Your task to perform on an android device: search for starred emails in the gmail app Image 0: 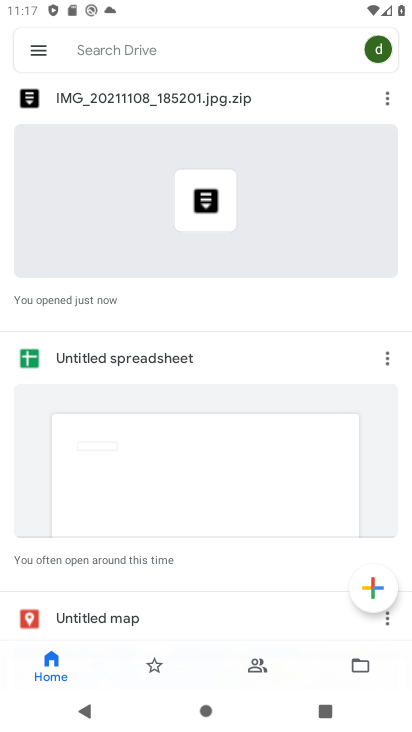
Step 0: press home button
Your task to perform on an android device: search for starred emails in the gmail app Image 1: 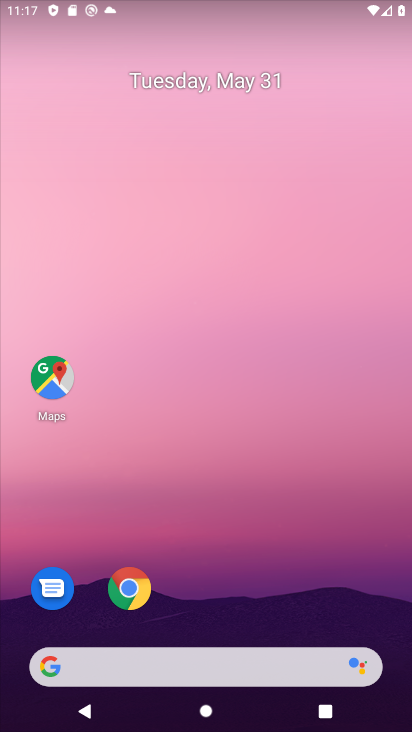
Step 1: drag from (195, 479) to (265, 237)
Your task to perform on an android device: search for starred emails in the gmail app Image 2: 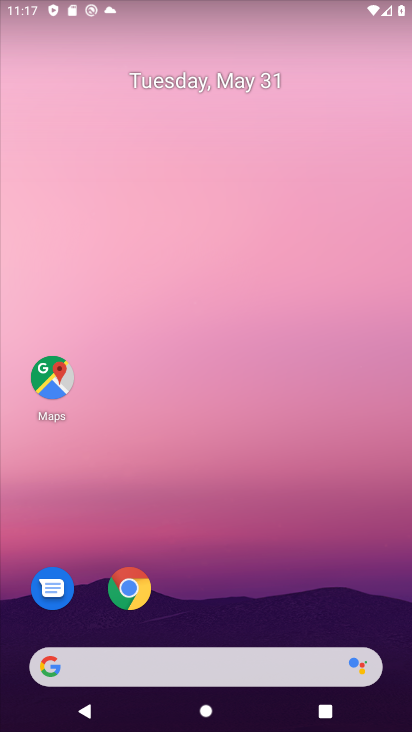
Step 2: drag from (243, 582) to (367, 220)
Your task to perform on an android device: search for starred emails in the gmail app Image 3: 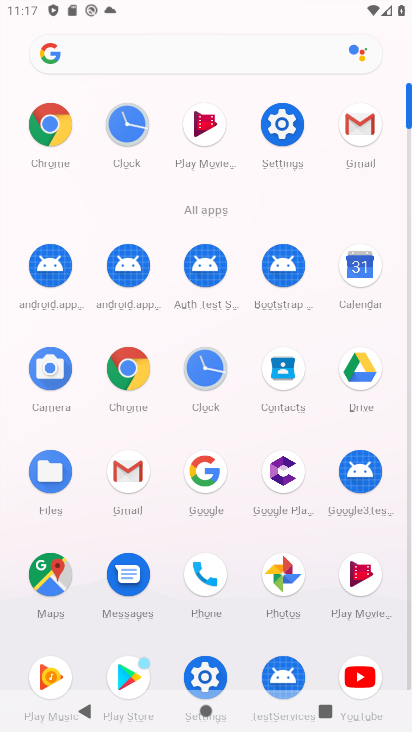
Step 3: click (351, 124)
Your task to perform on an android device: search for starred emails in the gmail app Image 4: 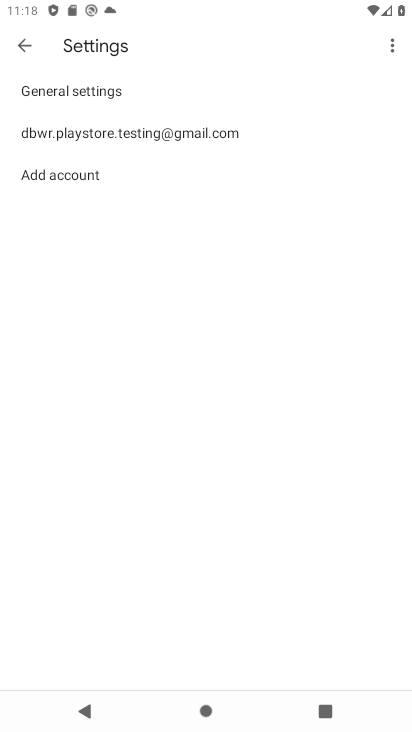
Step 4: click (64, 126)
Your task to perform on an android device: search for starred emails in the gmail app Image 5: 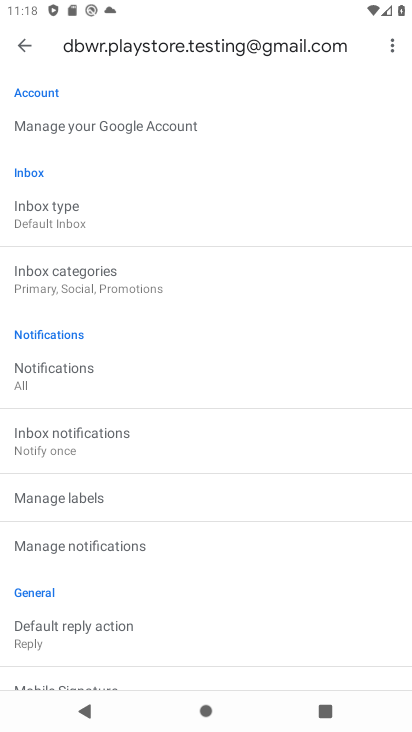
Step 5: click (22, 48)
Your task to perform on an android device: search for starred emails in the gmail app Image 6: 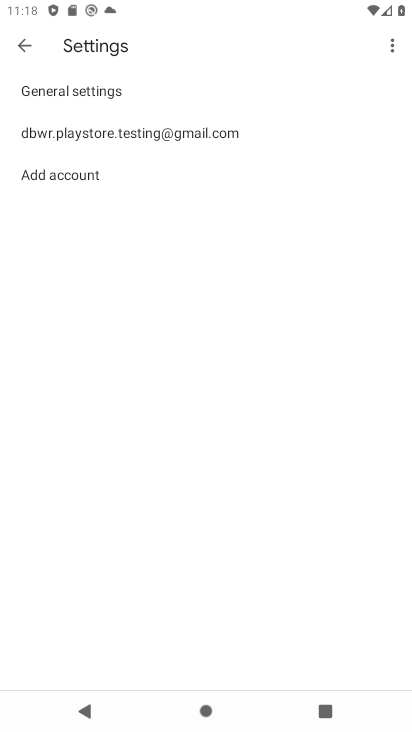
Step 6: click (32, 41)
Your task to perform on an android device: search for starred emails in the gmail app Image 7: 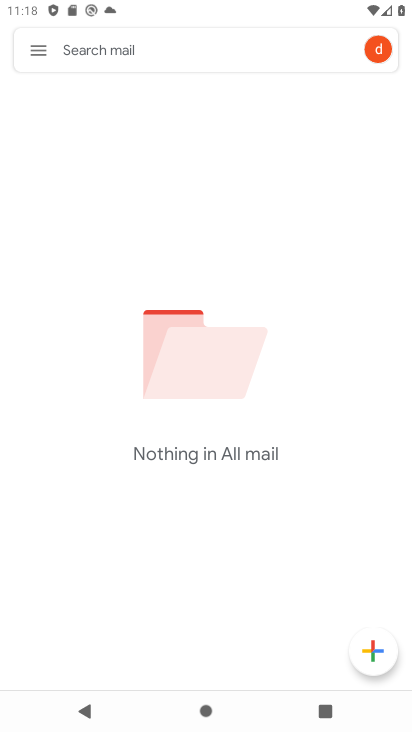
Step 7: click (31, 55)
Your task to perform on an android device: search for starred emails in the gmail app Image 8: 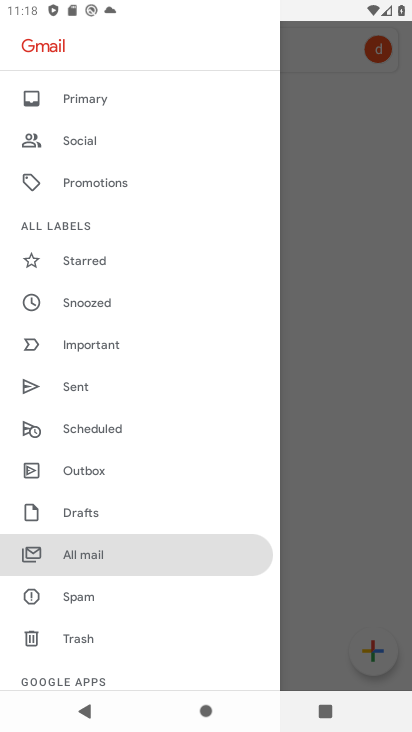
Step 8: click (76, 257)
Your task to perform on an android device: search for starred emails in the gmail app Image 9: 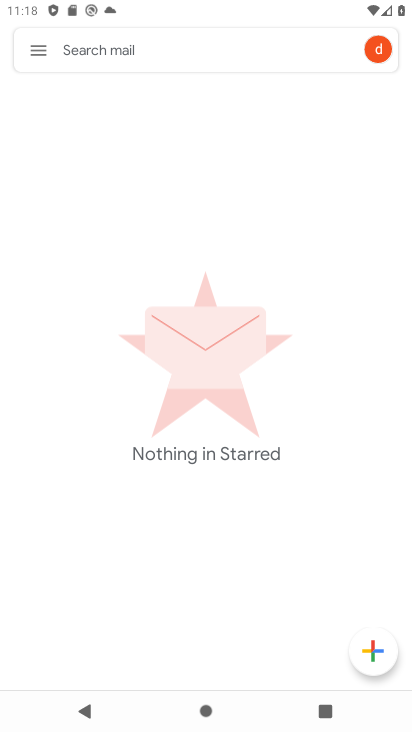
Step 9: task complete